Your task to perform on an android device: Go to settings Image 0: 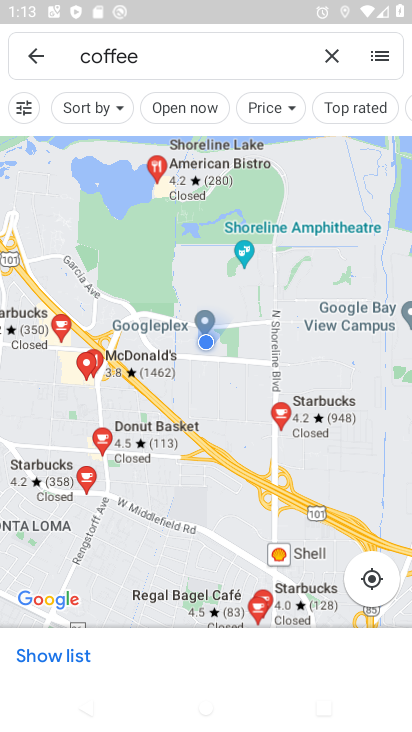
Step 0: press home button
Your task to perform on an android device: Go to settings Image 1: 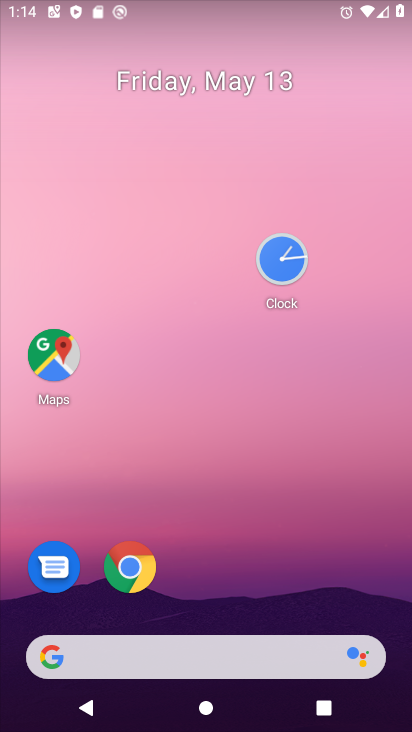
Step 1: drag from (289, 597) to (294, 102)
Your task to perform on an android device: Go to settings Image 2: 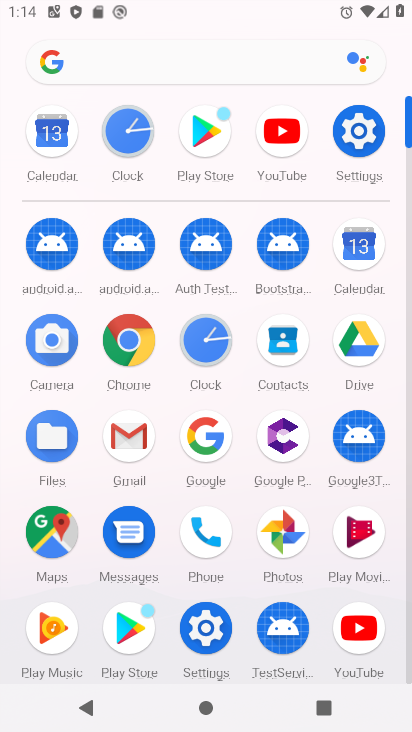
Step 2: click (375, 137)
Your task to perform on an android device: Go to settings Image 3: 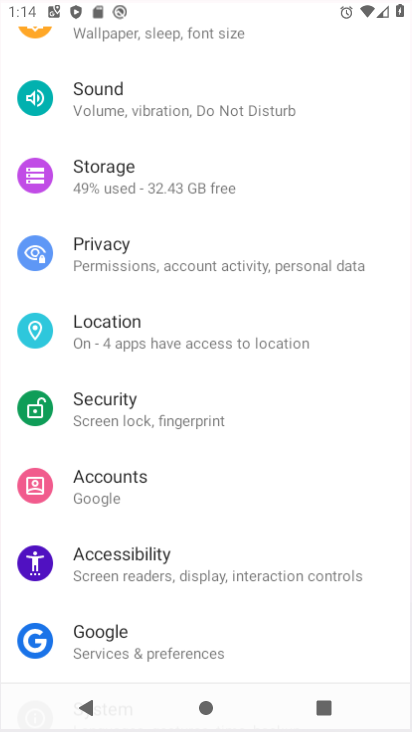
Step 3: task complete